Your task to perform on an android device: Go to eBay Image 0: 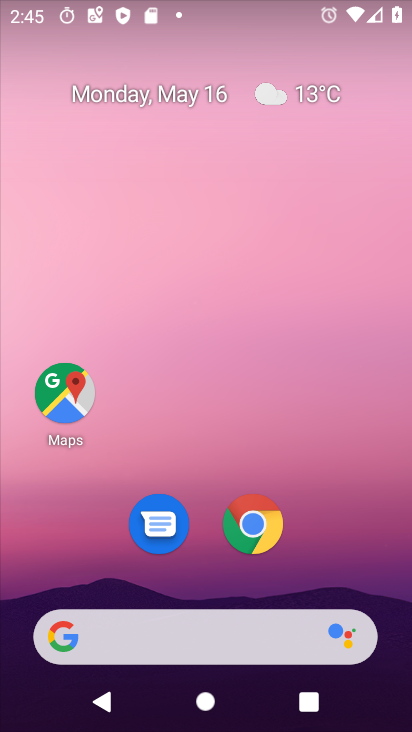
Step 0: click (265, 642)
Your task to perform on an android device: Go to eBay Image 1: 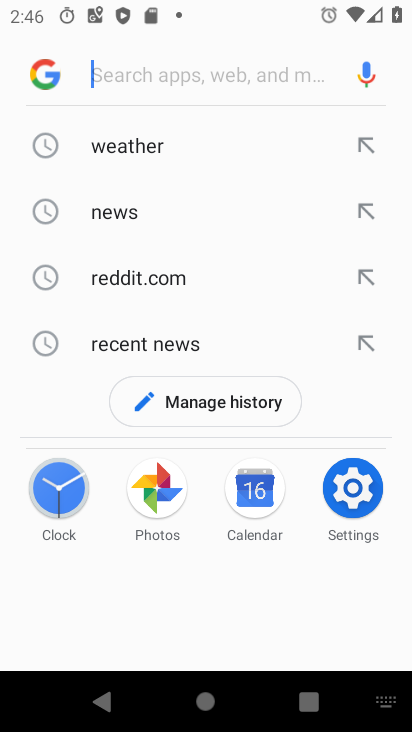
Step 1: type "ebay"
Your task to perform on an android device: Go to eBay Image 2: 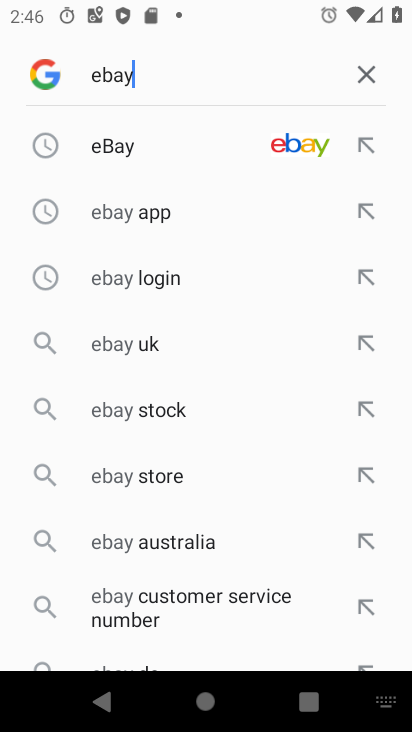
Step 2: click (98, 140)
Your task to perform on an android device: Go to eBay Image 3: 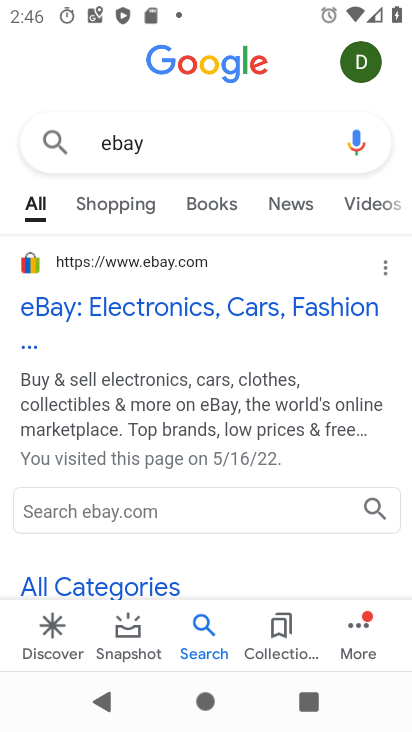
Step 3: click (45, 305)
Your task to perform on an android device: Go to eBay Image 4: 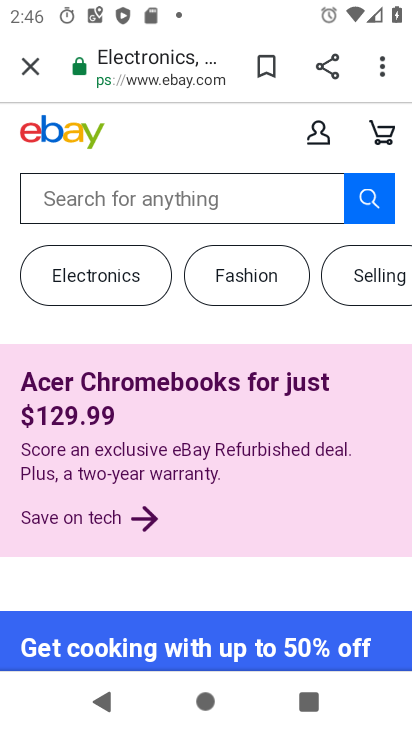
Step 4: task complete